Your task to perform on an android device: What's the weather going to be tomorrow? Image 0: 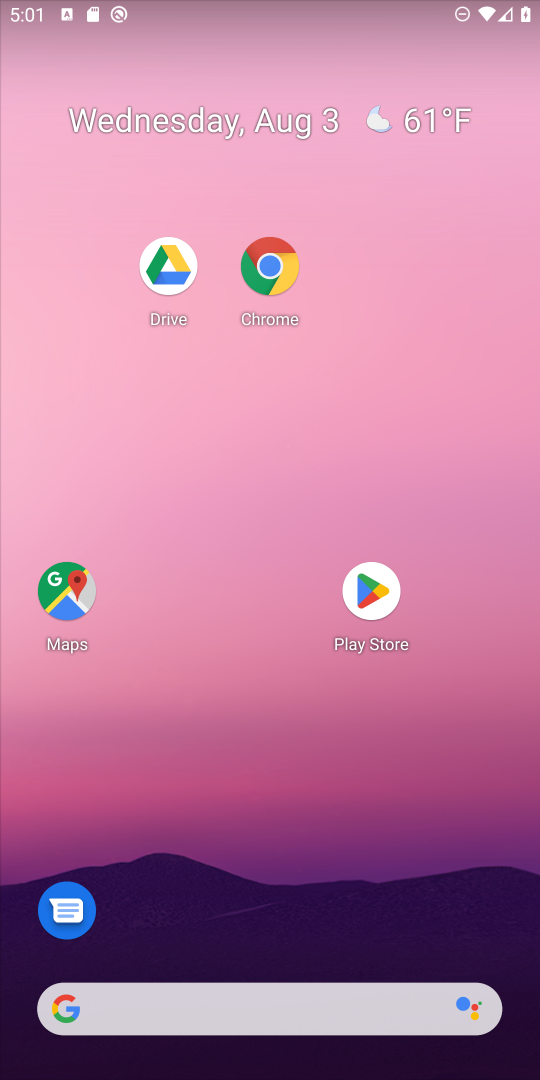
Step 0: drag from (125, 429) to (537, 384)
Your task to perform on an android device: What's the weather going to be tomorrow? Image 1: 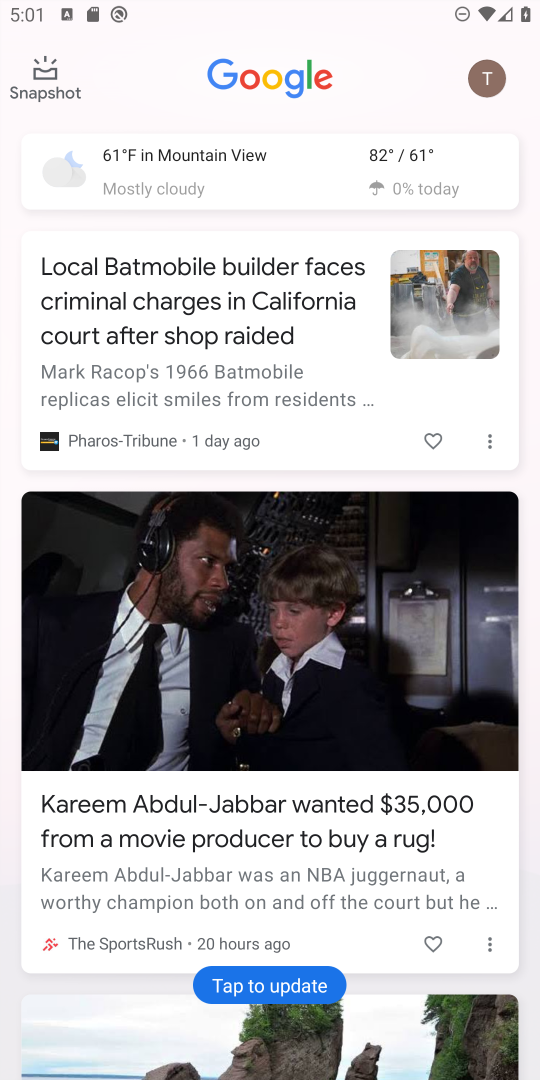
Step 1: click (272, 155)
Your task to perform on an android device: What's the weather going to be tomorrow? Image 2: 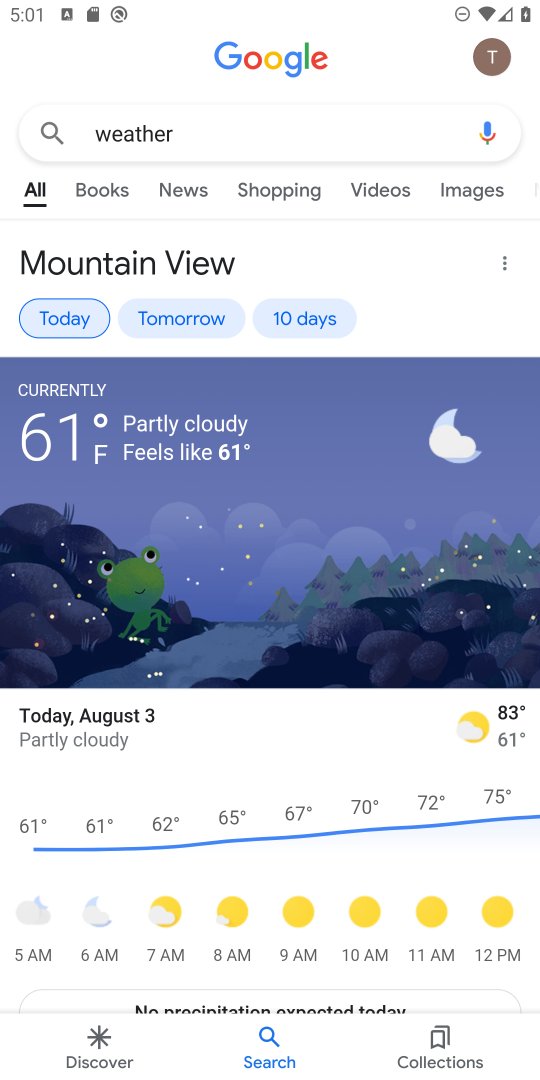
Step 2: click (199, 309)
Your task to perform on an android device: What's the weather going to be tomorrow? Image 3: 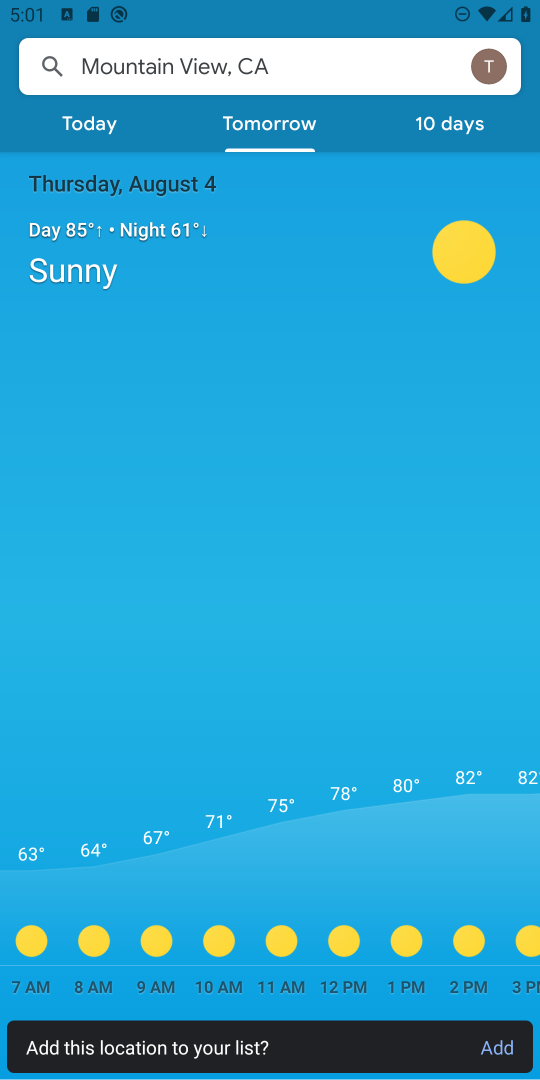
Step 3: task complete